Your task to perform on an android device: Go to Android settings Image 0: 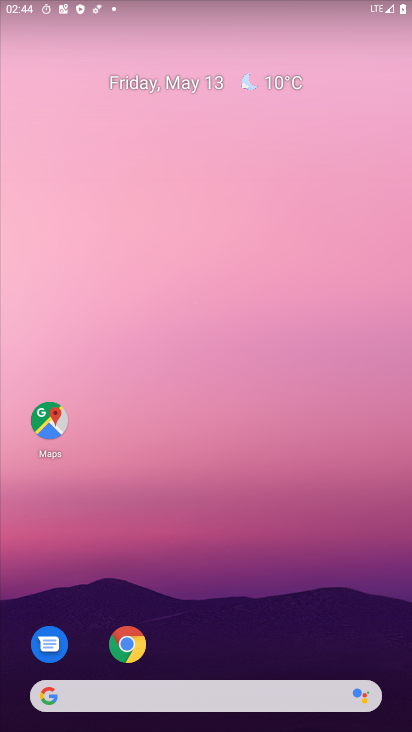
Step 0: drag from (216, 676) to (328, 97)
Your task to perform on an android device: Go to Android settings Image 1: 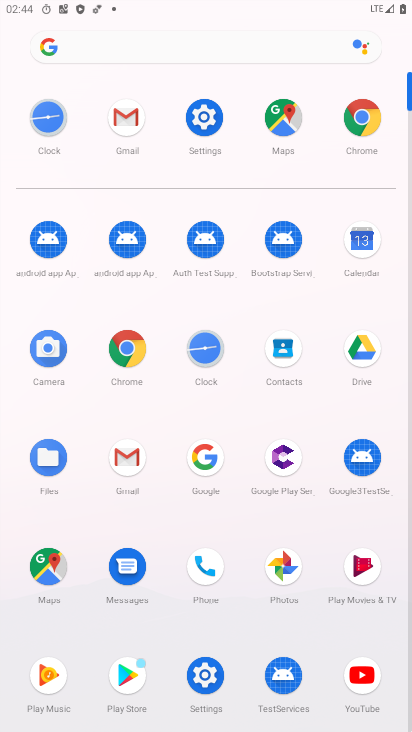
Step 1: click (210, 120)
Your task to perform on an android device: Go to Android settings Image 2: 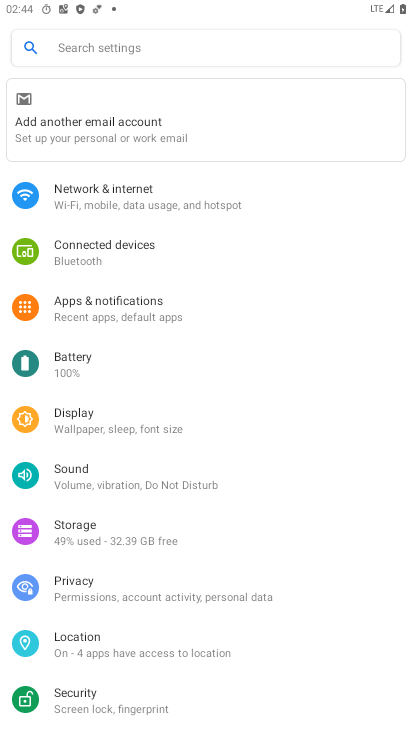
Step 2: drag from (218, 644) to (249, 111)
Your task to perform on an android device: Go to Android settings Image 3: 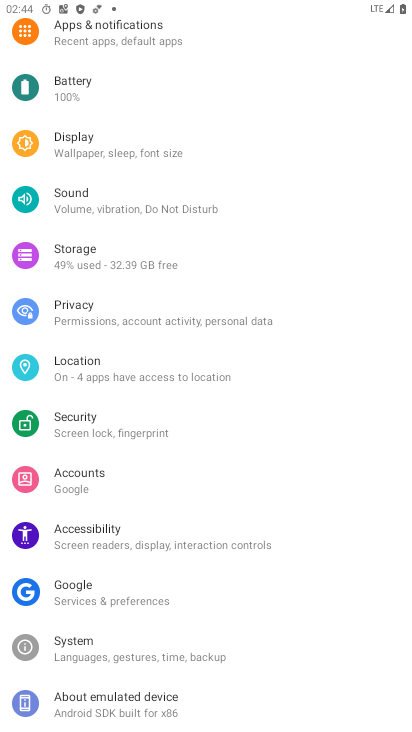
Step 3: click (207, 703)
Your task to perform on an android device: Go to Android settings Image 4: 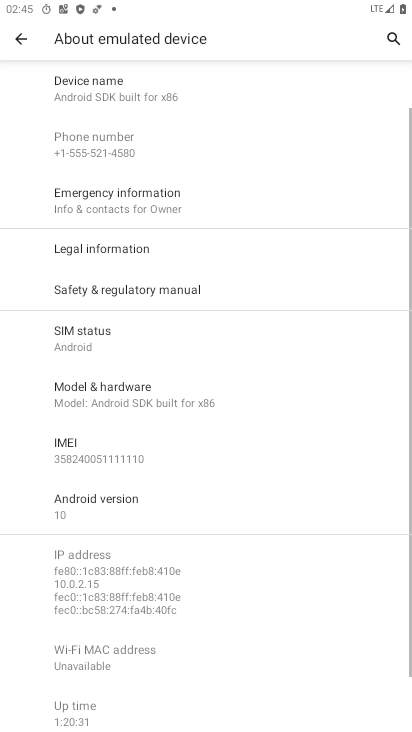
Step 4: task complete